Your task to perform on an android device: Open Google Image 0: 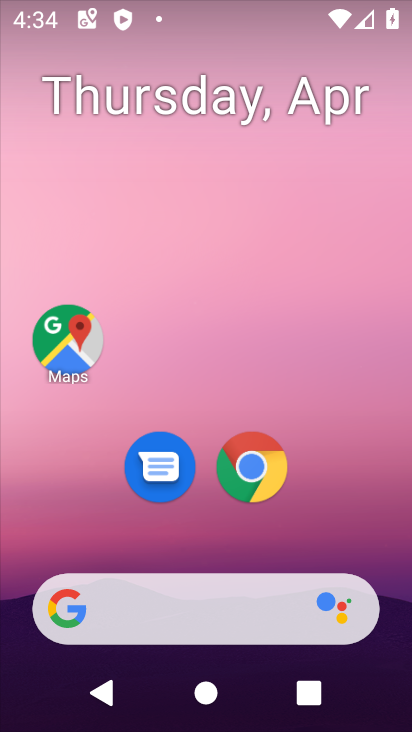
Step 0: click (262, 472)
Your task to perform on an android device: Open Google Image 1: 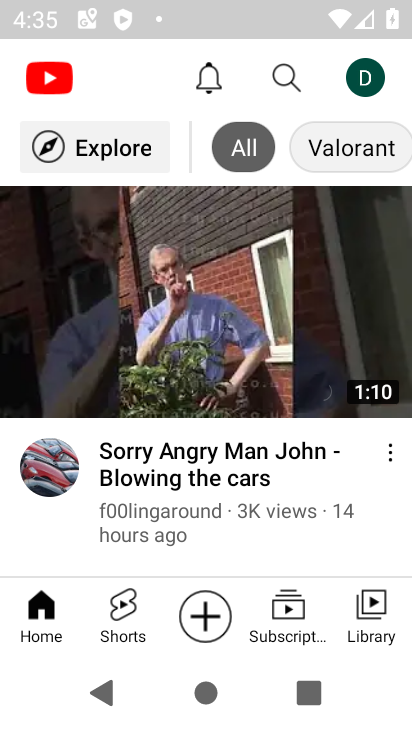
Step 1: press home button
Your task to perform on an android device: Open Google Image 2: 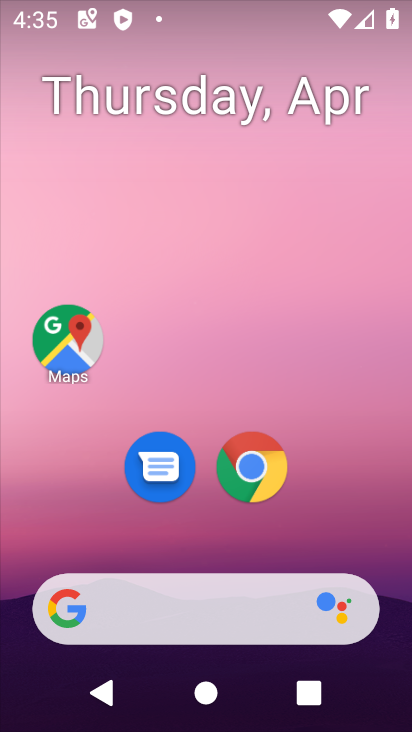
Step 2: click (199, 606)
Your task to perform on an android device: Open Google Image 3: 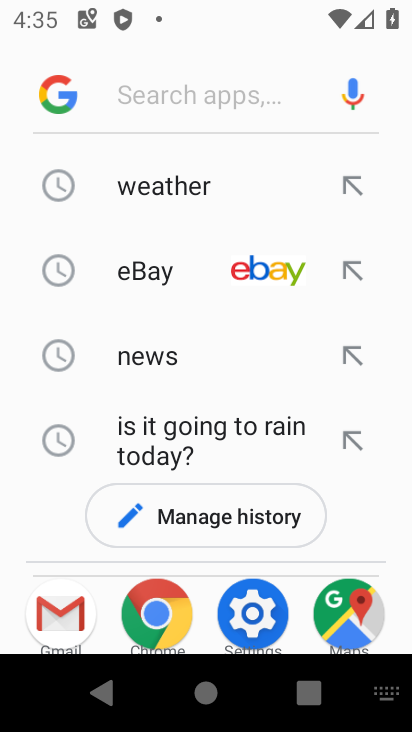
Step 3: click (50, 71)
Your task to perform on an android device: Open Google Image 4: 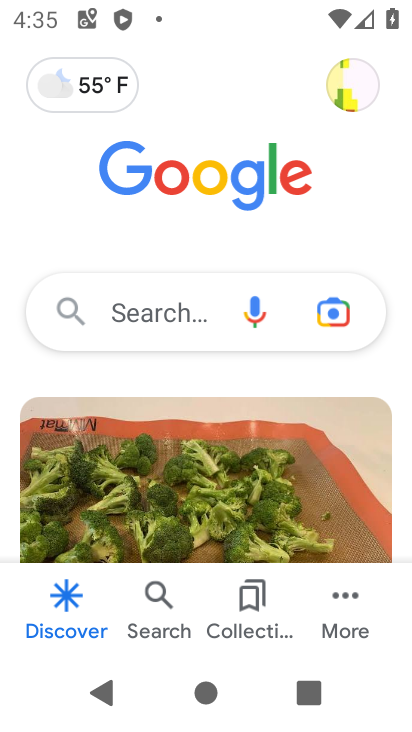
Step 4: task complete